Your task to perform on an android device: change the clock display to show seconds Image 0: 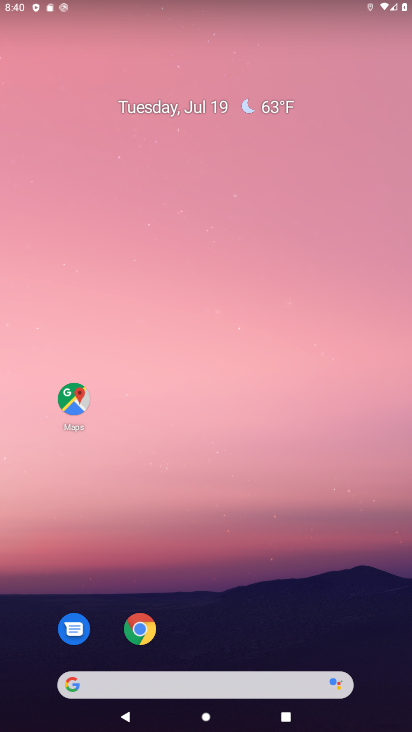
Step 0: press home button
Your task to perform on an android device: change the clock display to show seconds Image 1: 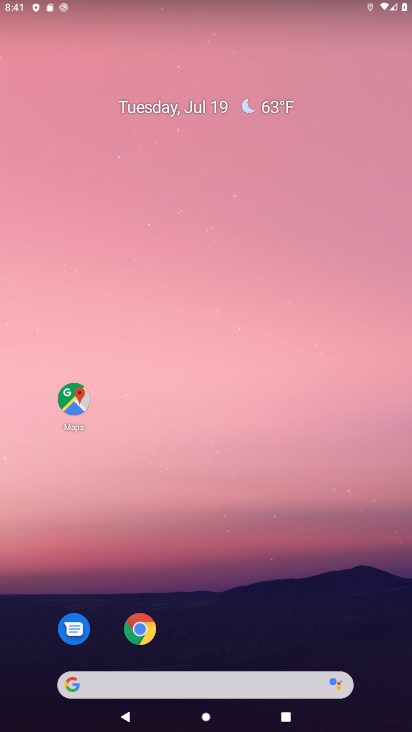
Step 1: drag from (210, 652) to (271, 29)
Your task to perform on an android device: change the clock display to show seconds Image 2: 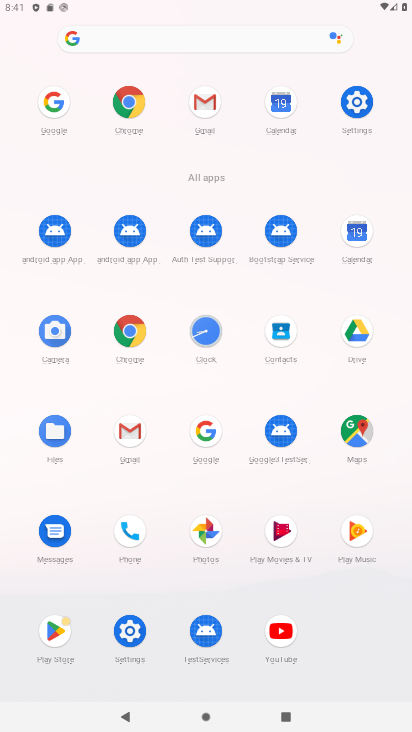
Step 2: click (200, 326)
Your task to perform on an android device: change the clock display to show seconds Image 3: 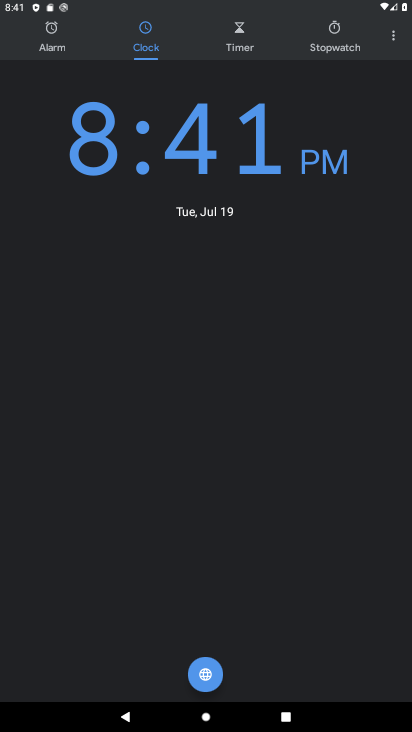
Step 3: click (391, 38)
Your task to perform on an android device: change the clock display to show seconds Image 4: 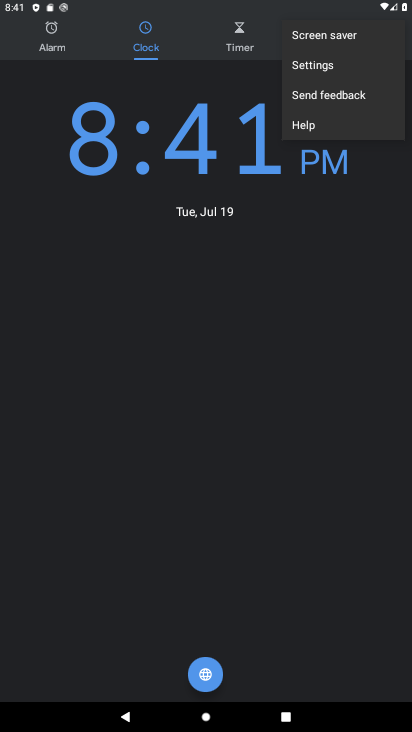
Step 4: click (336, 67)
Your task to perform on an android device: change the clock display to show seconds Image 5: 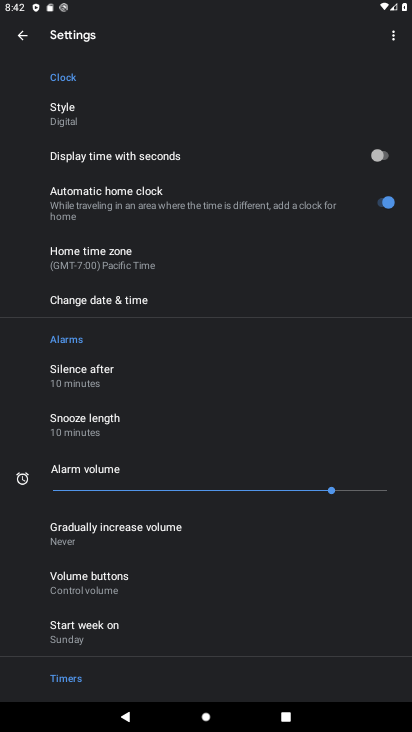
Step 5: click (385, 154)
Your task to perform on an android device: change the clock display to show seconds Image 6: 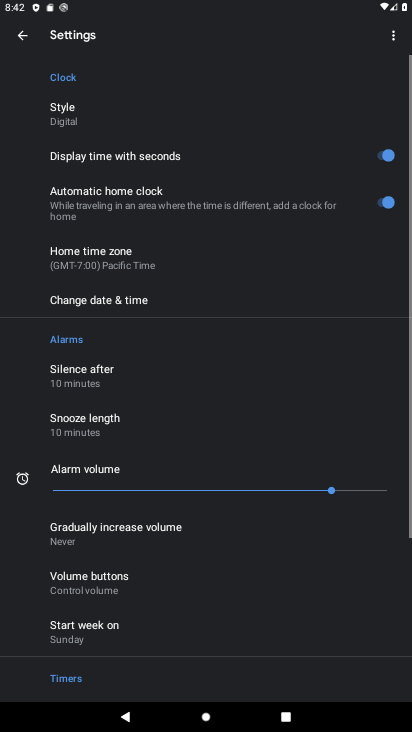
Step 6: task complete